Your task to perform on an android device: What's the weather going to be this weekend? Image 0: 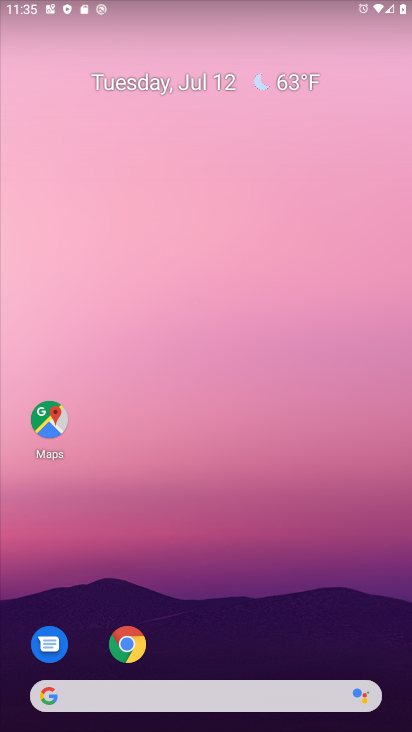
Step 0: drag from (198, 700) to (238, 130)
Your task to perform on an android device: What's the weather going to be this weekend? Image 1: 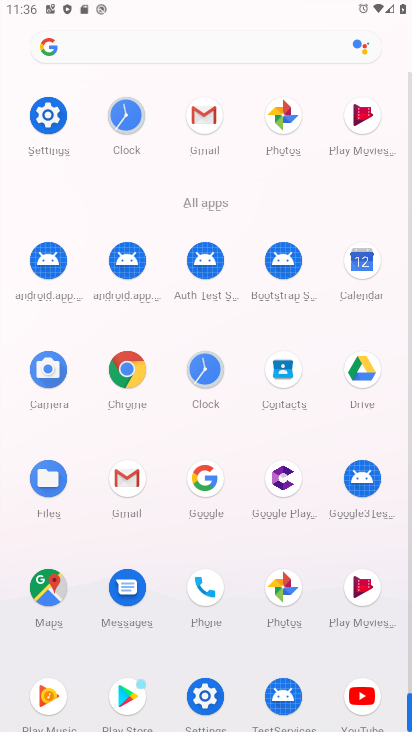
Step 1: click (203, 477)
Your task to perform on an android device: What's the weather going to be this weekend? Image 2: 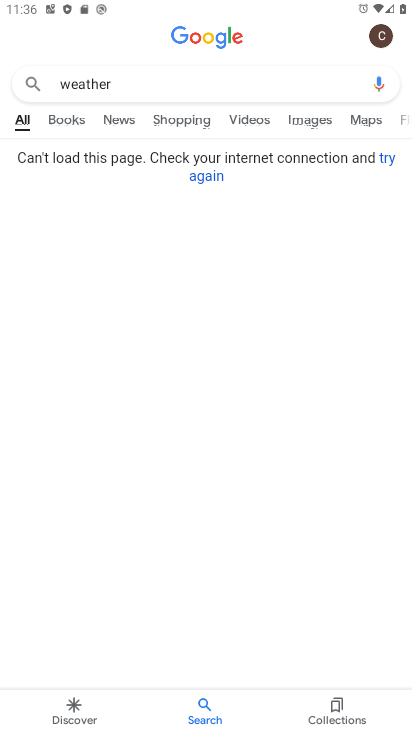
Step 2: click (232, 85)
Your task to perform on an android device: What's the weather going to be this weekend? Image 3: 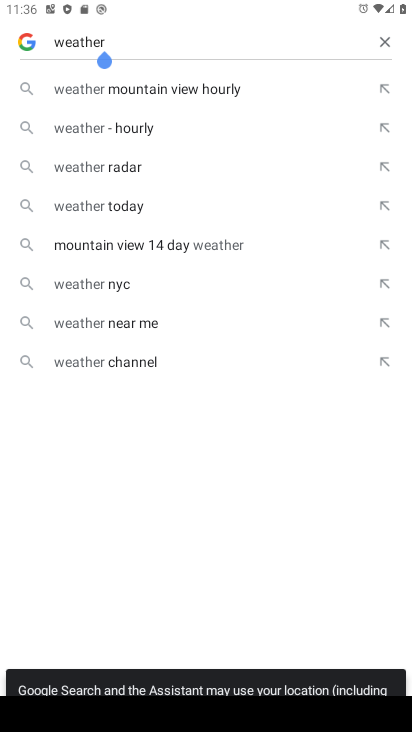
Step 3: click (386, 41)
Your task to perform on an android device: What's the weather going to be this weekend? Image 4: 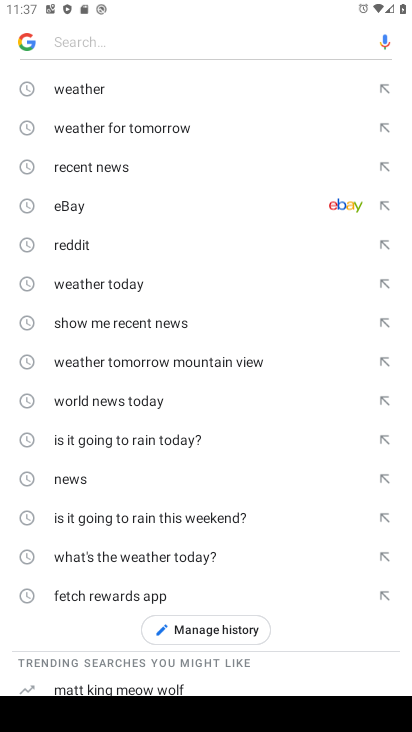
Step 4: type "What's weather going to be this weekend?"
Your task to perform on an android device: What's the weather going to be this weekend? Image 5: 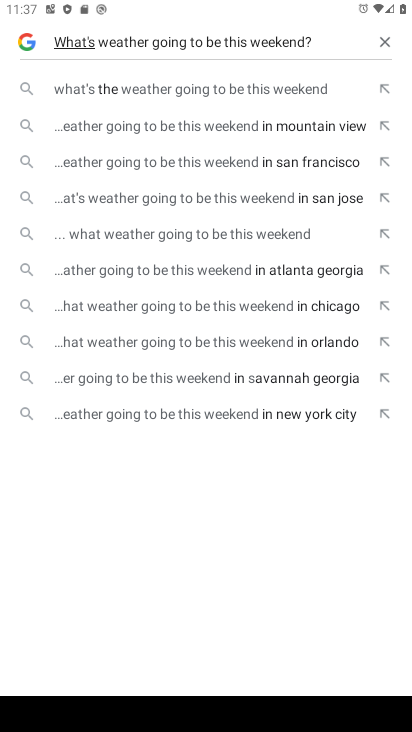
Step 5: click (112, 96)
Your task to perform on an android device: What's the weather going to be this weekend? Image 6: 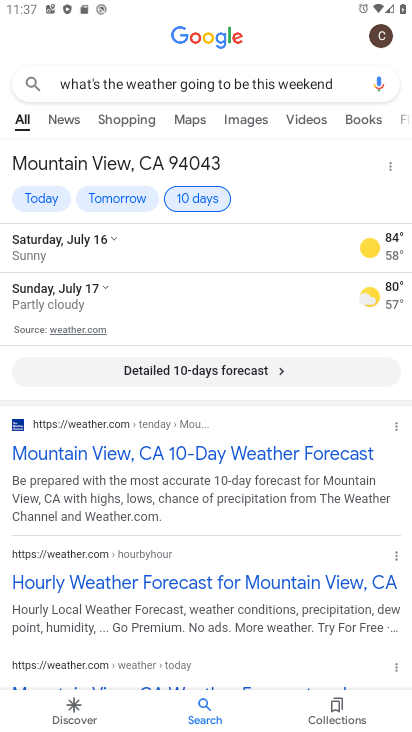
Step 6: task complete